Your task to perform on an android device: move an email to a new category in the gmail app Image 0: 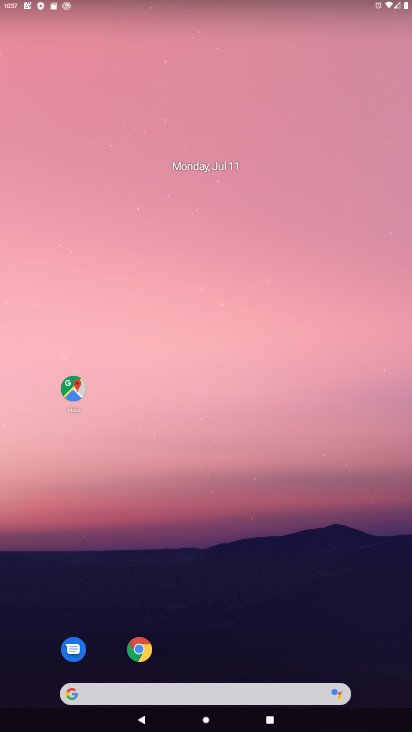
Step 0: drag from (391, 711) to (316, 154)
Your task to perform on an android device: move an email to a new category in the gmail app Image 1: 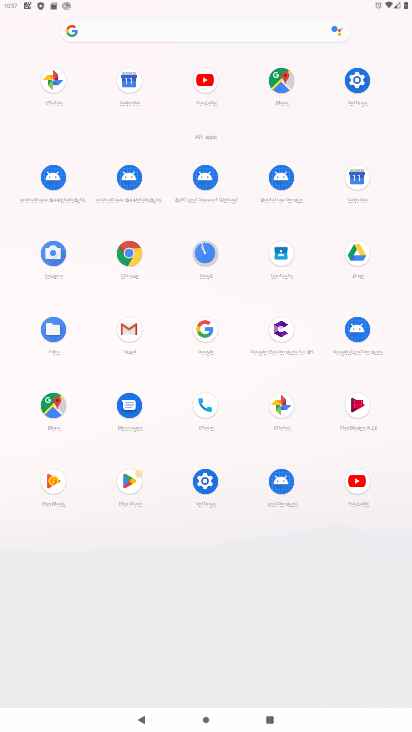
Step 1: click (133, 328)
Your task to perform on an android device: move an email to a new category in the gmail app Image 2: 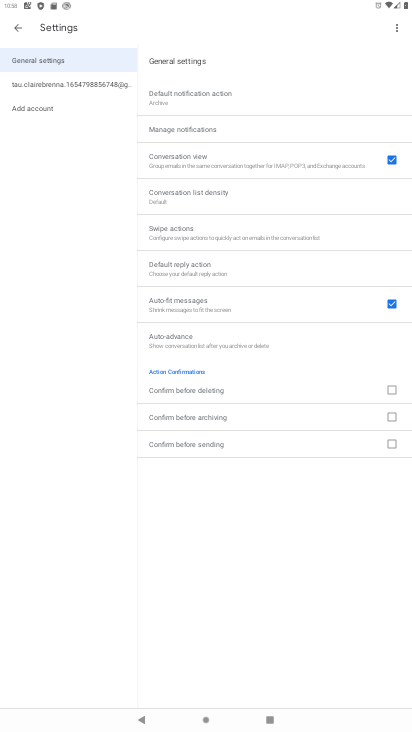
Step 2: task complete